Your task to perform on an android device: Go to notification settings Image 0: 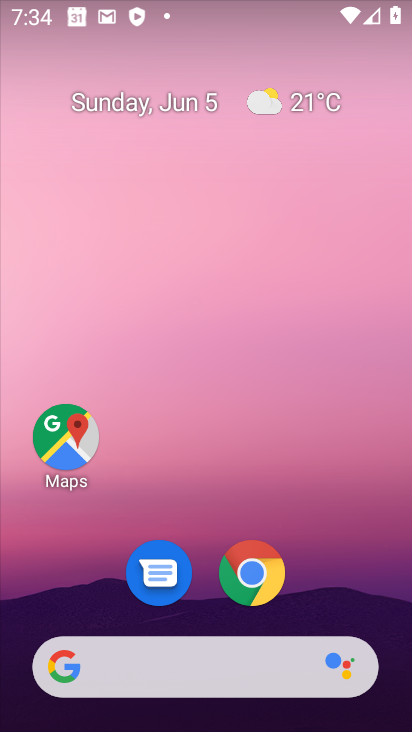
Step 0: drag from (217, 596) to (221, 263)
Your task to perform on an android device: Go to notification settings Image 1: 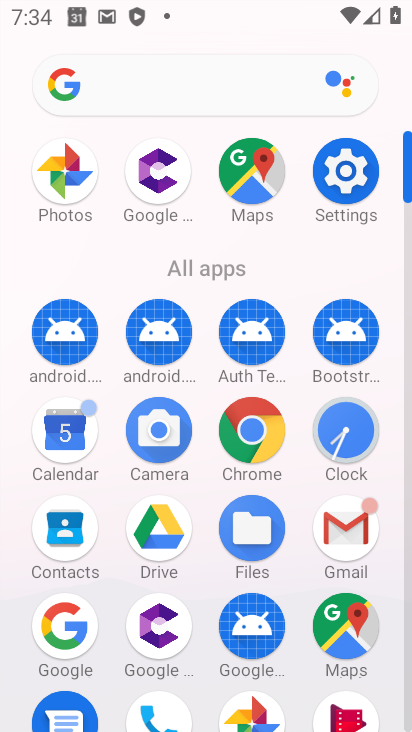
Step 1: click (349, 169)
Your task to perform on an android device: Go to notification settings Image 2: 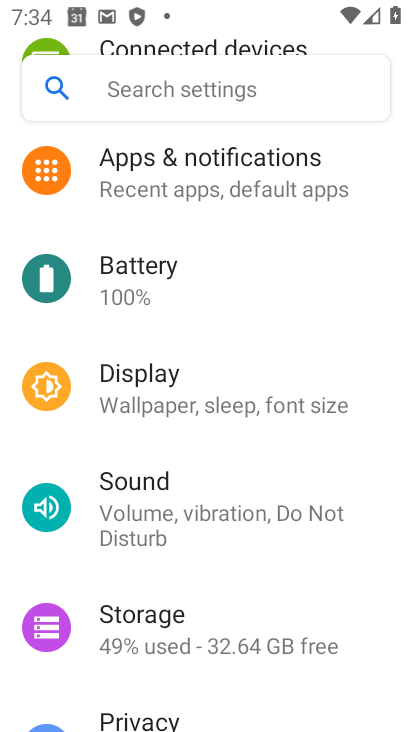
Step 2: click (215, 168)
Your task to perform on an android device: Go to notification settings Image 3: 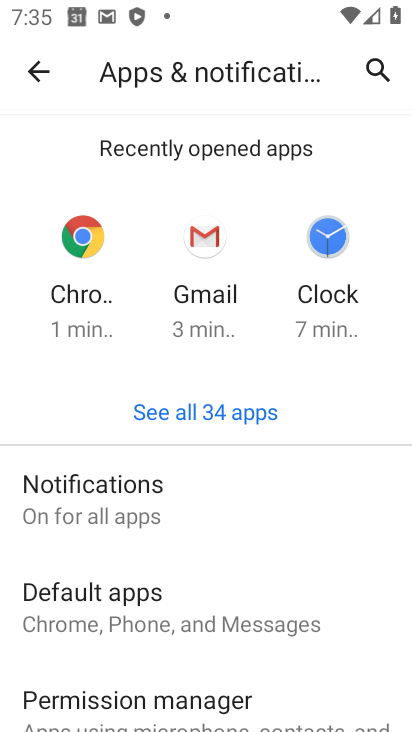
Step 3: task complete